Your task to perform on an android device: toggle location history Image 0: 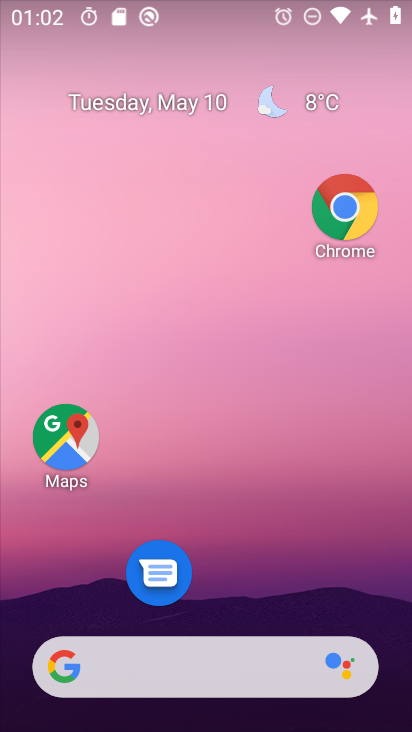
Step 0: drag from (278, 639) to (261, 137)
Your task to perform on an android device: toggle location history Image 1: 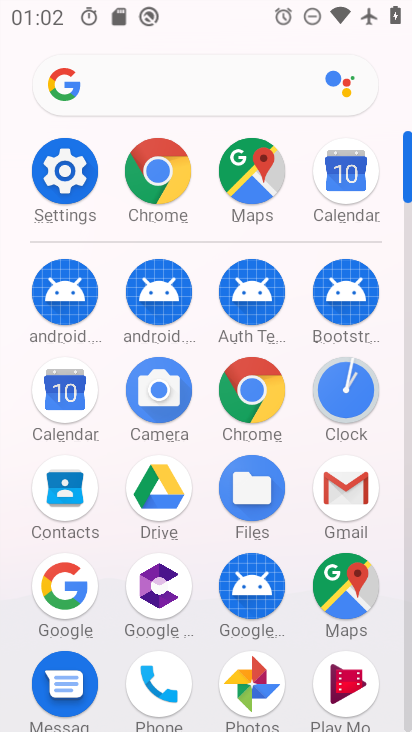
Step 1: click (81, 173)
Your task to perform on an android device: toggle location history Image 2: 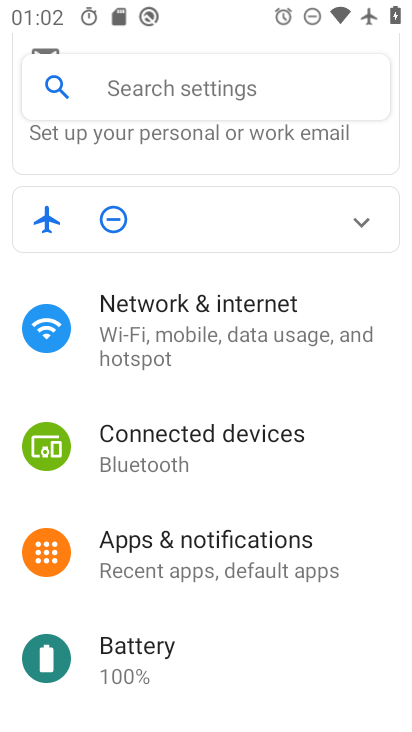
Step 2: drag from (257, 578) to (310, 247)
Your task to perform on an android device: toggle location history Image 3: 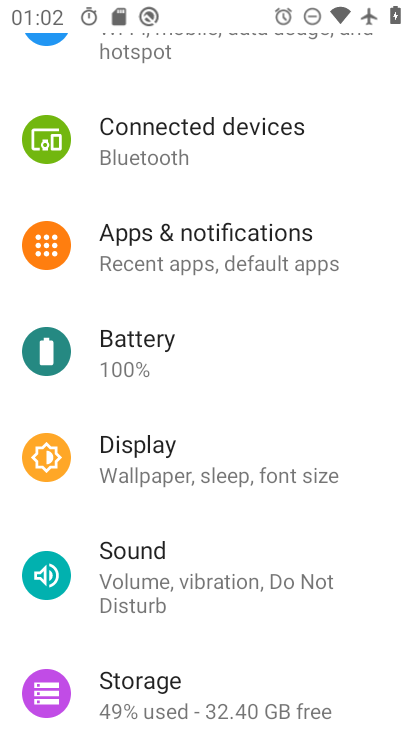
Step 3: drag from (240, 580) to (309, 300)
Your task to perform on an android device: toggle location history Image 4: 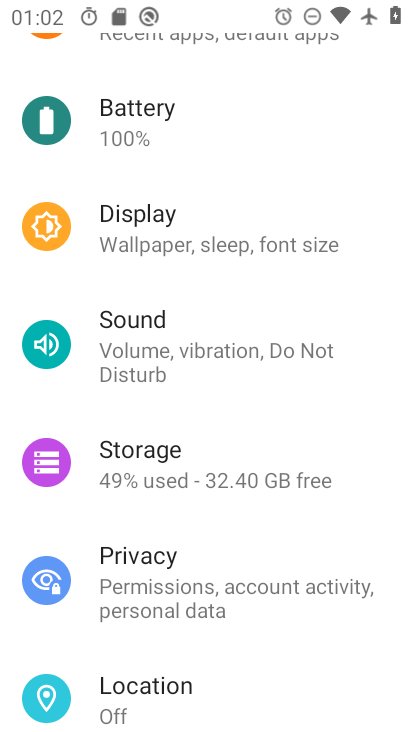
Step 4: drag from (231, 617) to (297, 384)
Your task to perform on an android device: toggle location history Image 5: 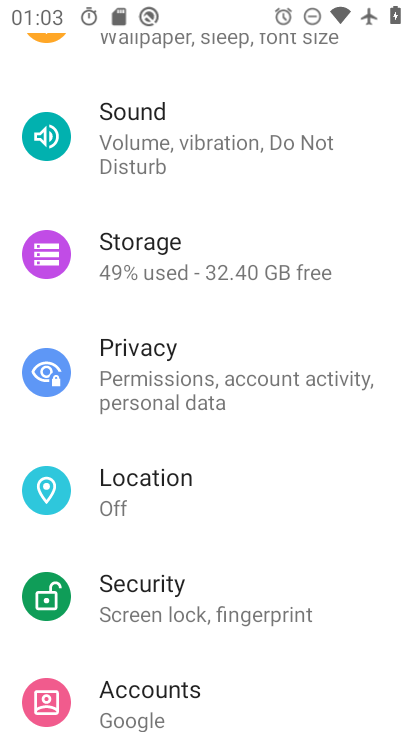
Step 5: click (173, 487)
Your task to perform on an android device: toggle location history Image 6: 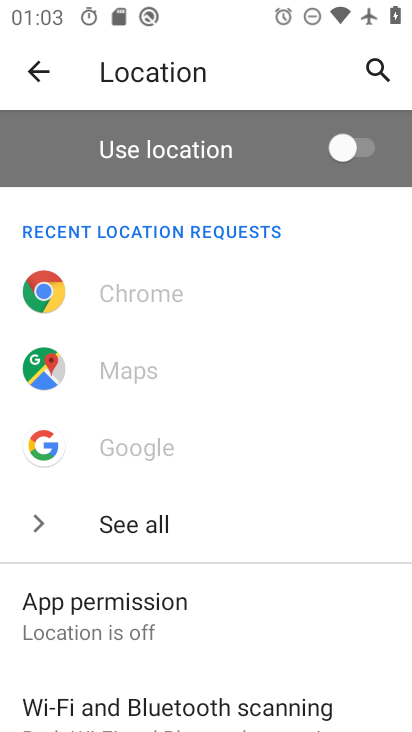
Step 6: drag from (229, 608) to (301, 310)
Your task to perform on an android device: toggle location history Image 7: 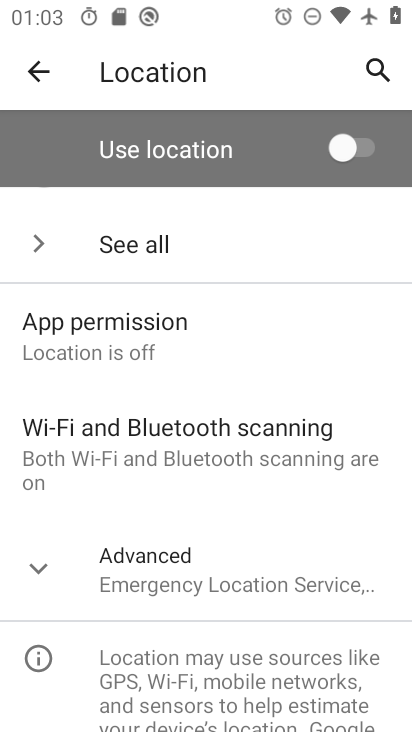
Step 7: click (180, 562)
Your task to perform on an android device: toggle location history Image 8: 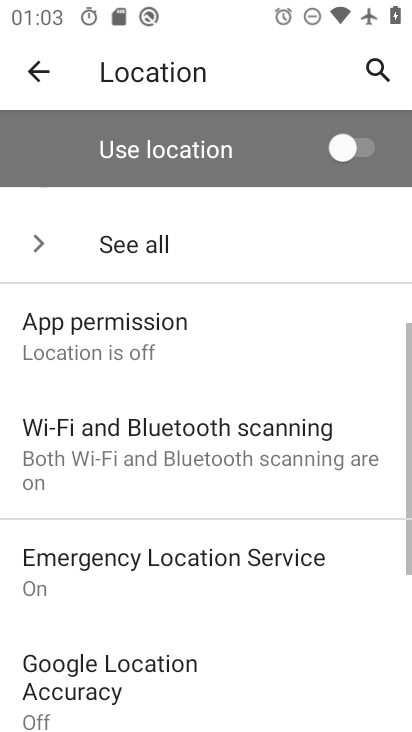
Step 8: drag from (221, 662) to (279, 309)
Your task to perform on an android device: toggle location history Image 9: 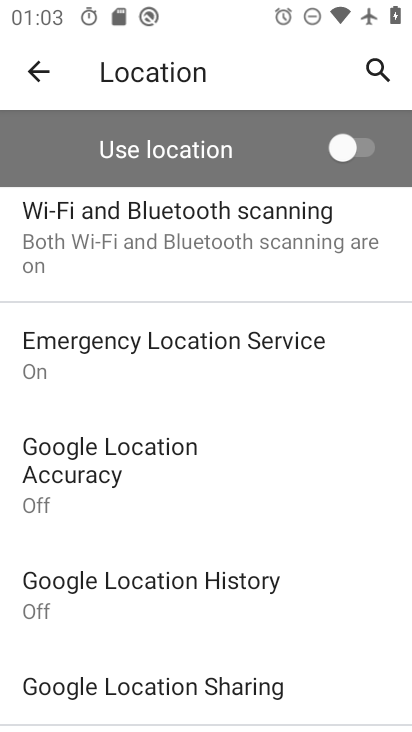
Step 9: click (186, 584)
Your task to perform on an android device: toggle location history Image 10: 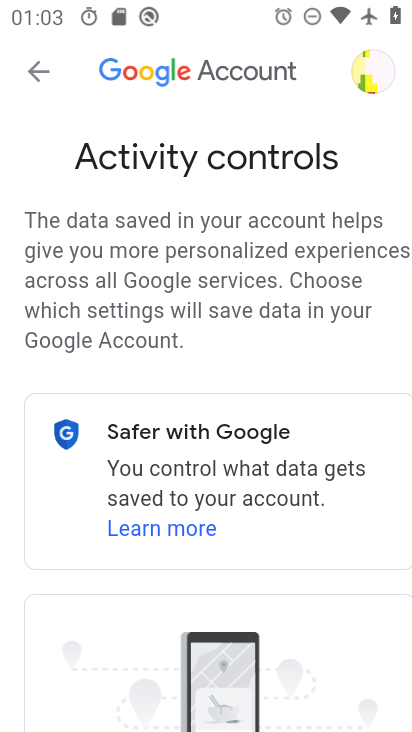
Step 10: drag from (228, 571) to (225, 216)
Your task to perform on an android device: toggle location history Image 11: 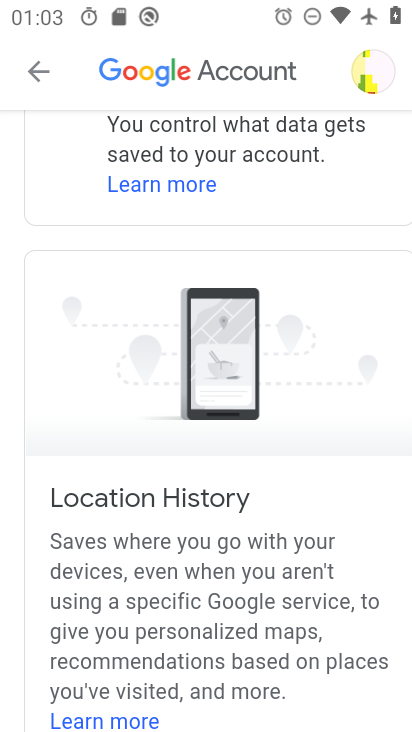
Step 11: drag from (254, 613) to (285, 146)
Your task to perform on an android device: toggle location history Image 12: 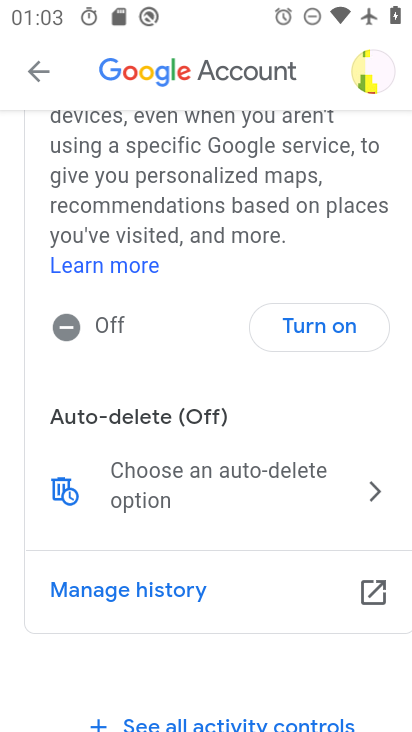
Step 12: click (315, 331)
Your task to perform on an android device: toggle location history Image 13: 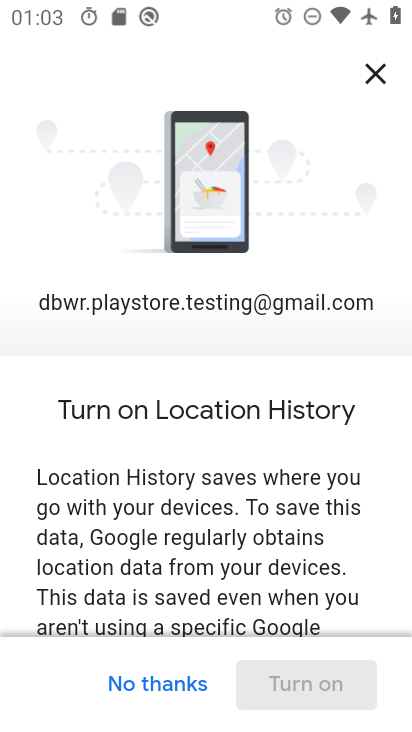
Step 13: drag from (261, 589) to (241, 186)
Your task to perform on an android device: toggle location history Image 14: 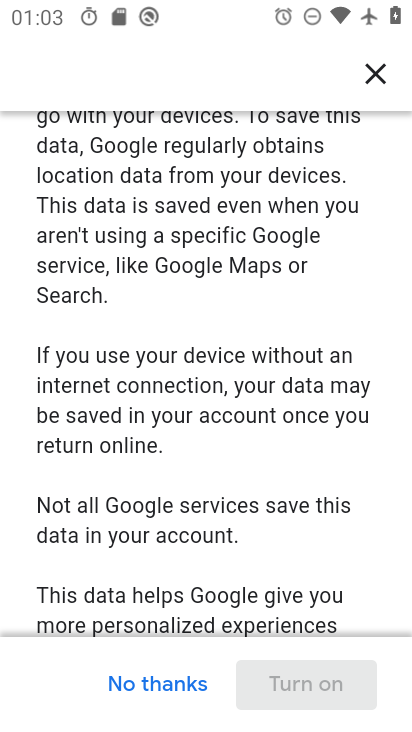
Step 14: drag from (276, 599) to (288, 207)
Your task to perform on an android device: toggle location history Image 15: 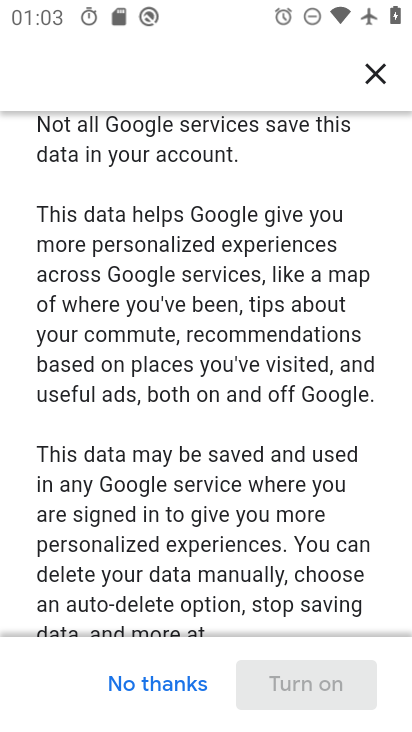
Step 15: drag from (243, 414) to (272, 175)
Your task to perform on an android device: toggle location history Image 16: 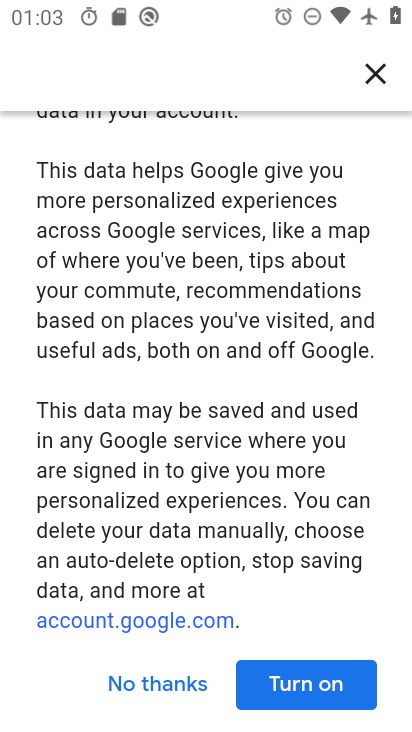
Step 16: click (335, 687)
Your task to perform on an android device: toggle location history Image 17: 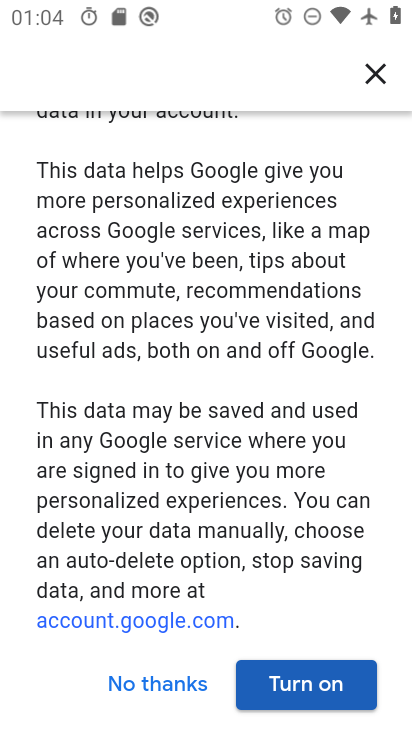
Step 17: click (329, 678)
Your task to perform on an android device: toggle location history Image 18: 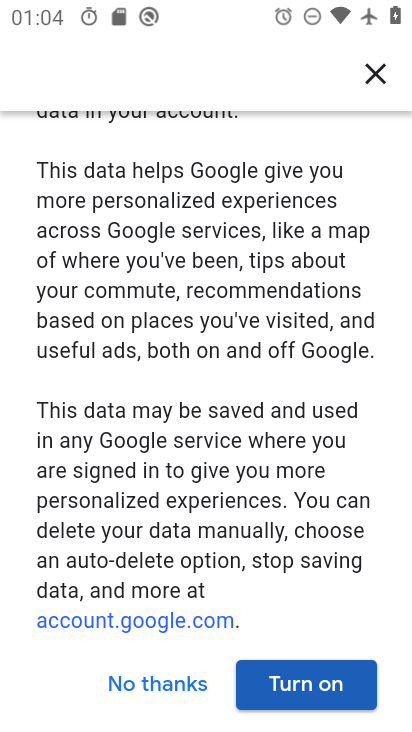
Step 18: click (300, 689)
Your task to perform on an android device: toggle location history Image 19: 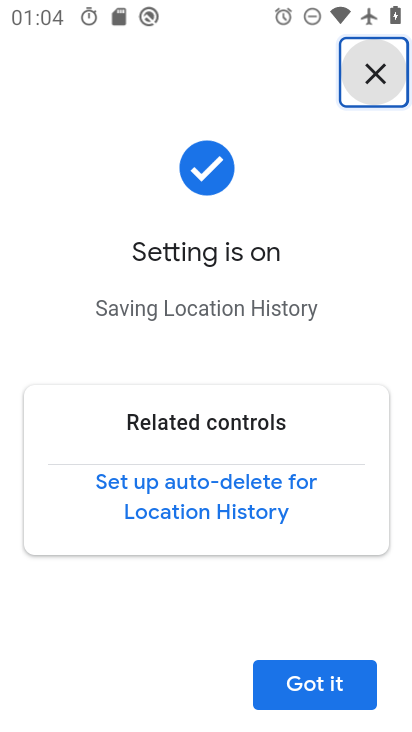
Step 19: task complete